Your task to perform on an android device: Open the stopwatch Image 0: 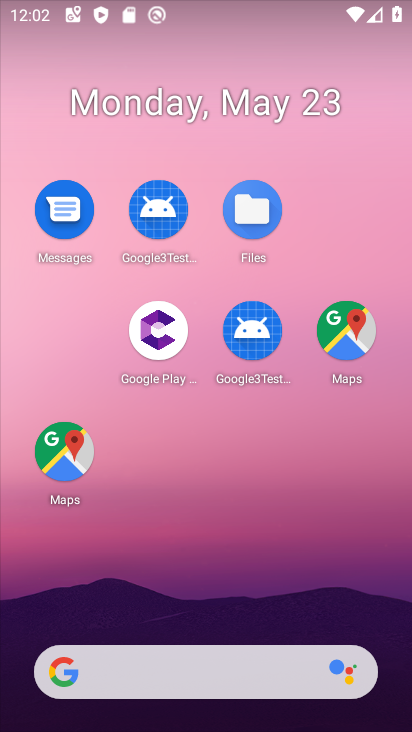
Step 0: drag from (177, 634) to (96, 130)
Your task to perform on an android device: Open the stopwatch Image 1: 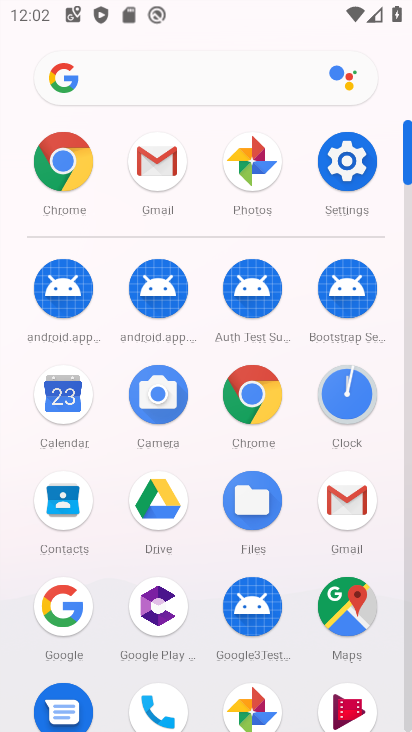
Step 1: click (355, 401)
Your task to perform on an android device: Open the stopwatch Image 2: 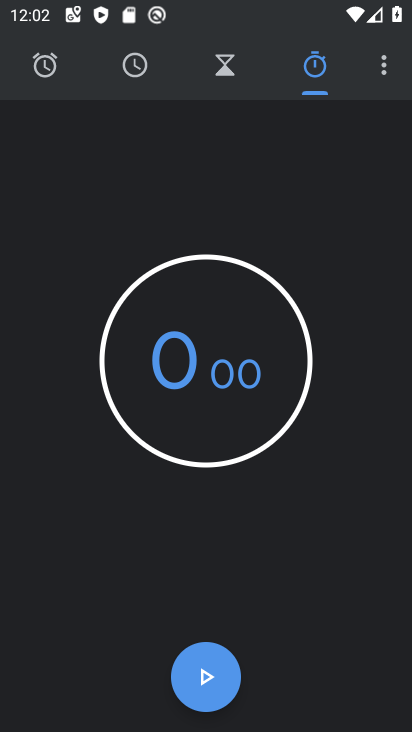
Step 2: task complete